Your task to perform on an android device: toggle notifications settings in the gmail app Image 0: 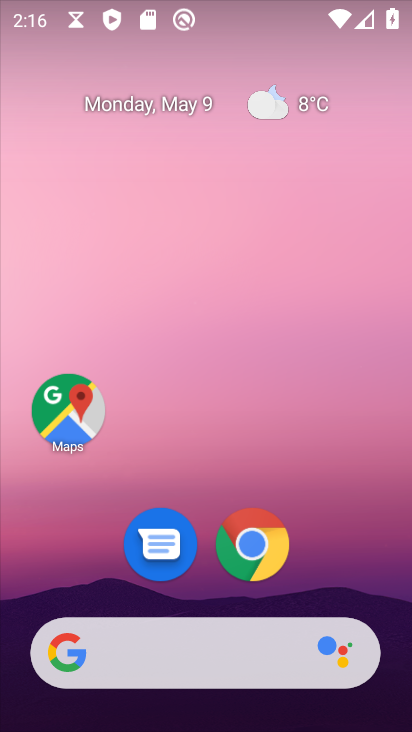
Step 0: drag from (267, 421) to (79, 199)
Your task to perform on an android device: toggle notifications settings in the gmail app Image 1: 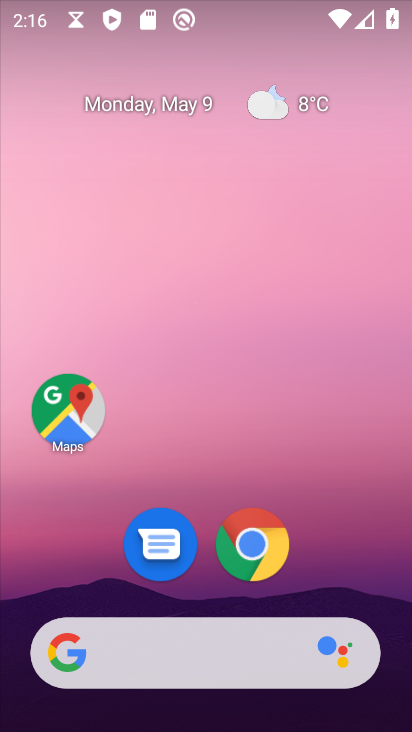
Step 1: drag from (342, 584) to (156, 103)
Your task to perform on an android device: toggle notifications settings in the gmail app Image 2: 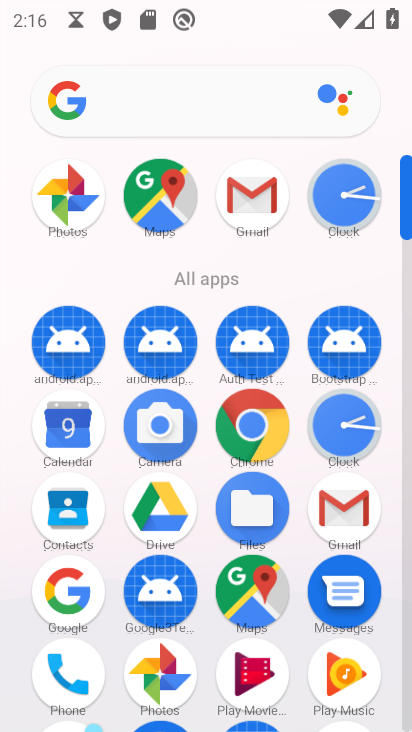
Step 2: click (245, 208)
Your task to perform on an android device: toggle notifications settings in the gmail app Image 3: 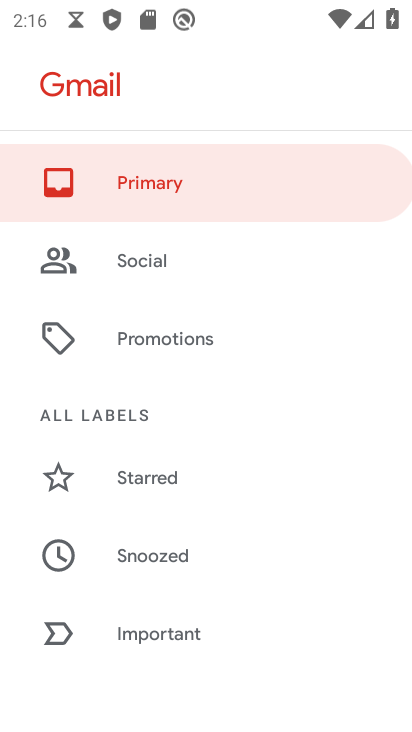
Step 3: drag from (190, 640) to (191, 274)
Your task to perform on an android device: toggle notifications settings in the gmail app Image 4: 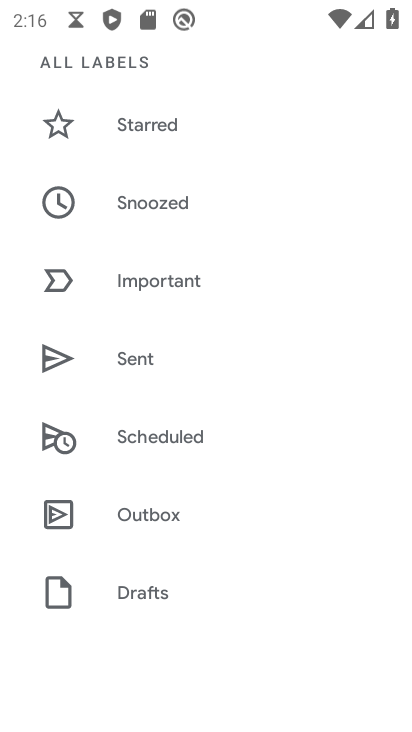
Step 4: drag from (160, 693) to (148, 302)
Your task to perform on an android device: toggle notifications settings in the gmail app Image 5: 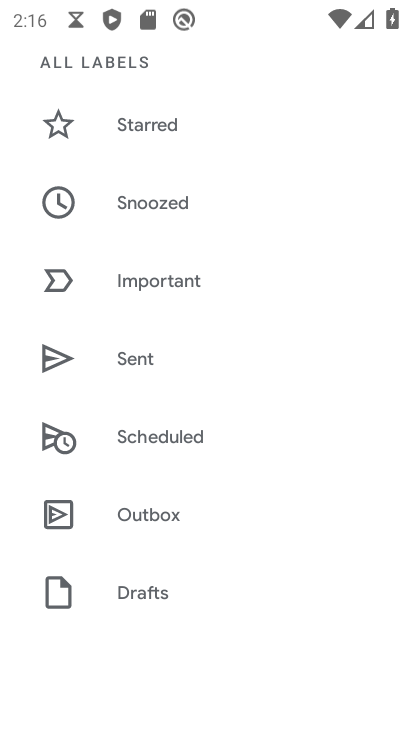
Step 5: drag from (156, 586) to (143, 256)
Your task to perform on an android device: toggle notifications settings in the gmail app Image 6: 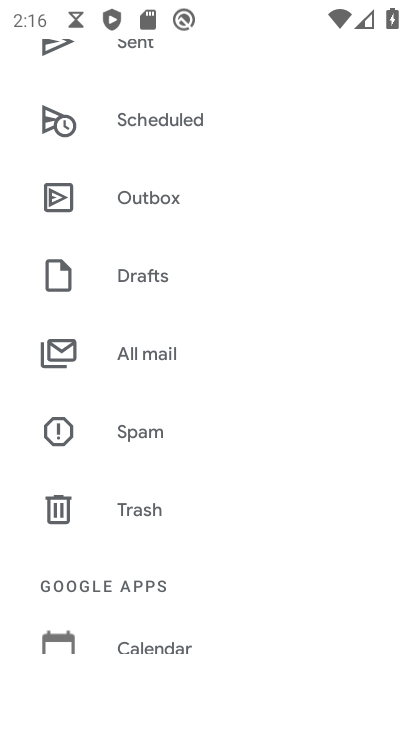
Step 6: drag from (111, 517) to (102, 234)
Your task to perform on an android device: toggle notifications settings in the gmail app Image 7: 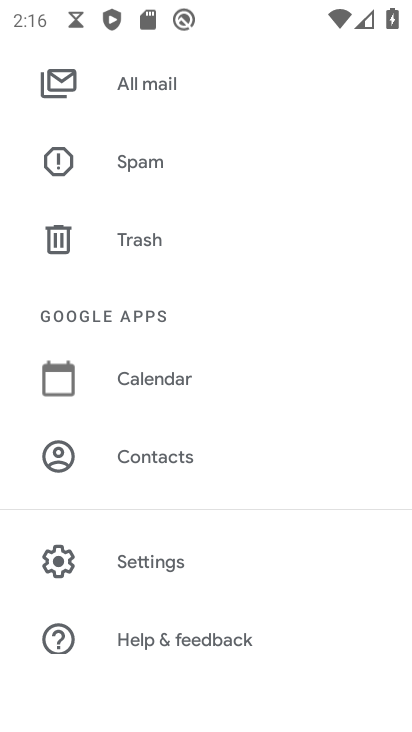
Step 7: click (128, 569)
Your task to perform on an android device: toggle notifications settings in the gmail app Image 8: 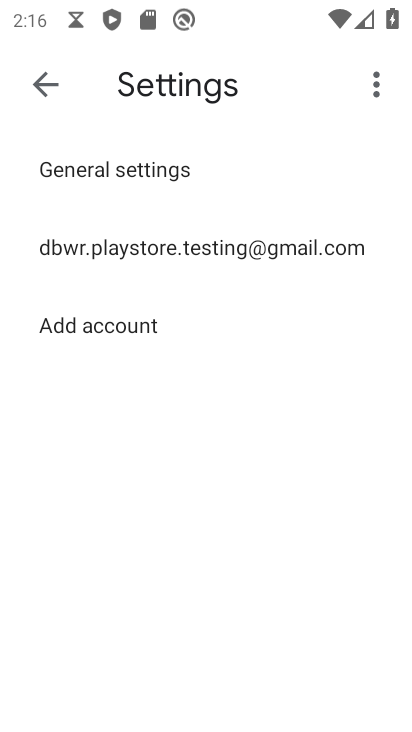
Step 8: click (178, 241)
Your task to perform on an android device: toggle notifications settings in the gmail app Image 9: 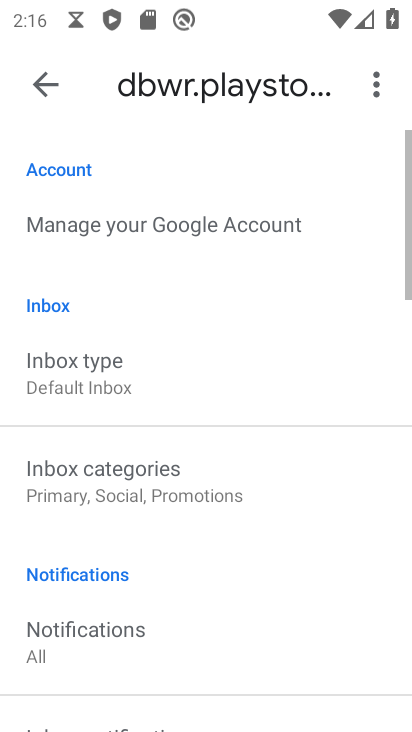
Step 9: drag from (201, 578) to (190, 295)
Your task to perform on an android device: toggle notifications settings in the gmail app Image 10: 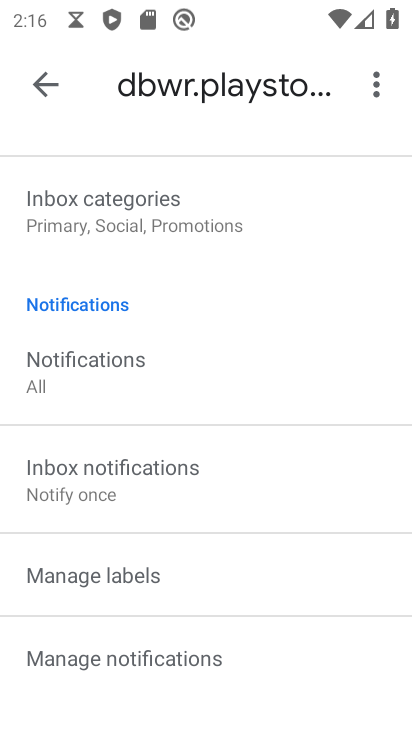
Step 10: drag from (114, 638) to (128, 480)
Your task to perform on an android device: toggle notifications settings in the gmail app Image 11: 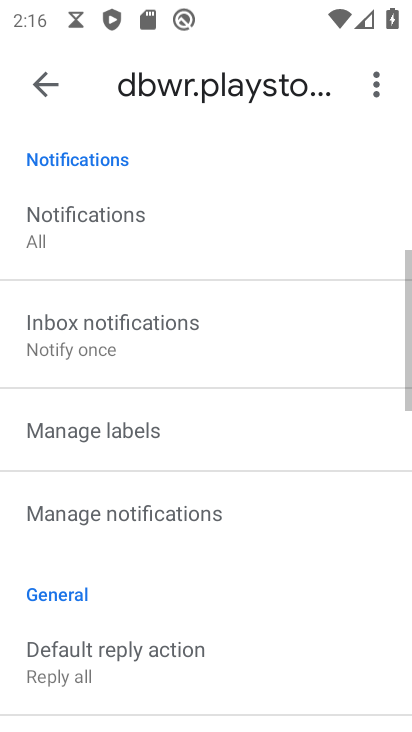
Step 11: click (111, 511)
Your task to perform on an android device: toggle notifications settings in the gmail app Image 12: 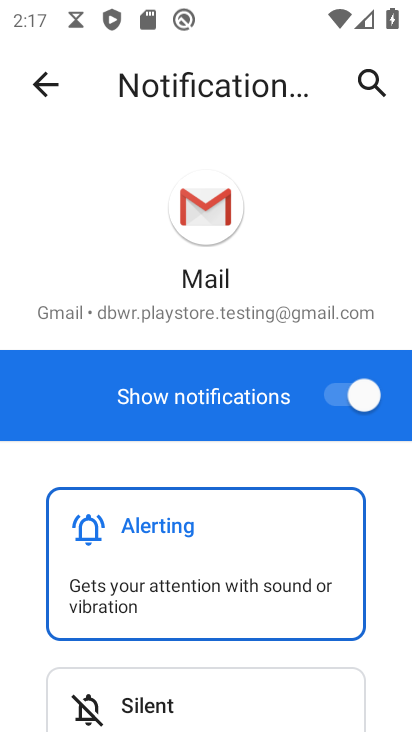
Step 12: click (356, 396)
Your task to perform on an android device: toggle notifications settings in the gmail app Image 13: 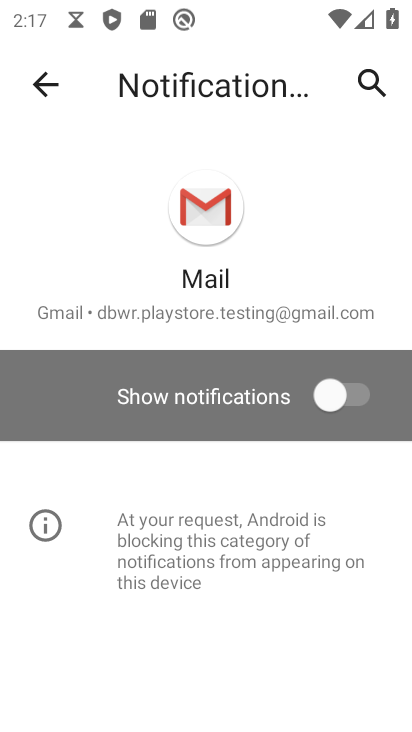
Step 13: task complete